Your task to perform on an android device: Open Yahoo.com Image 0: 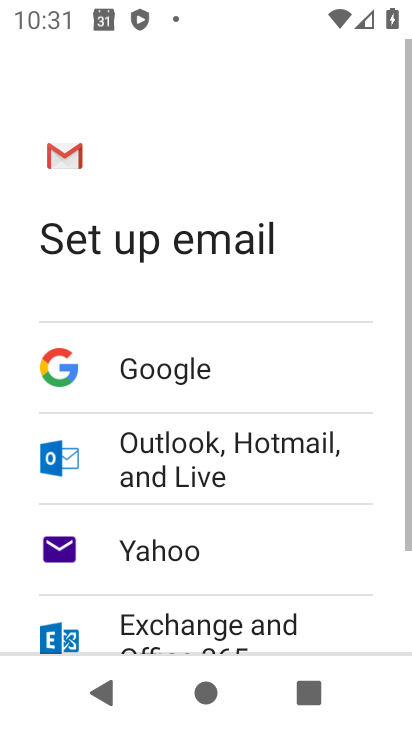
Step 0: press home button
Your task to perform on an android device: Open Yahoo.com Image 1: 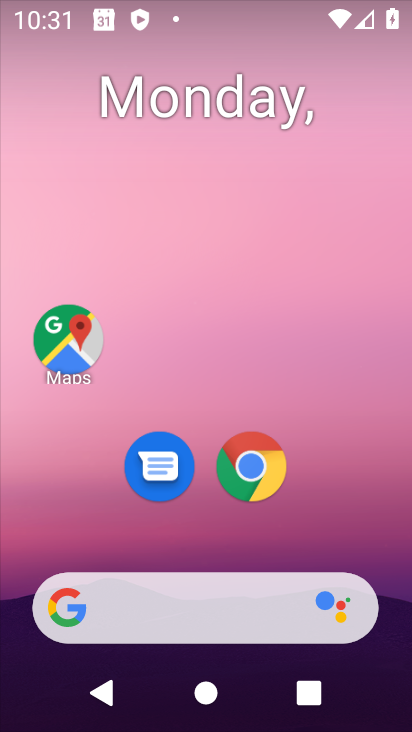
Step 1: drag from (325, 519) to (278, 10)
Your task to perform on an android device: Open Yahoo.com Image 2: 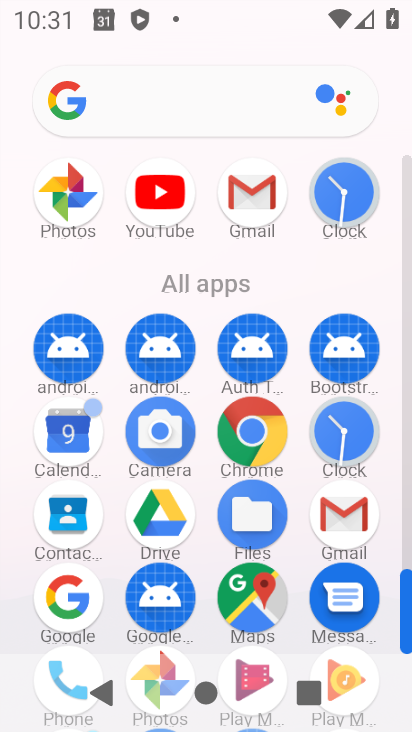
Step 2: click (242, 419)
Your task to perform on an android device: Open Yahoo.com Image 3: 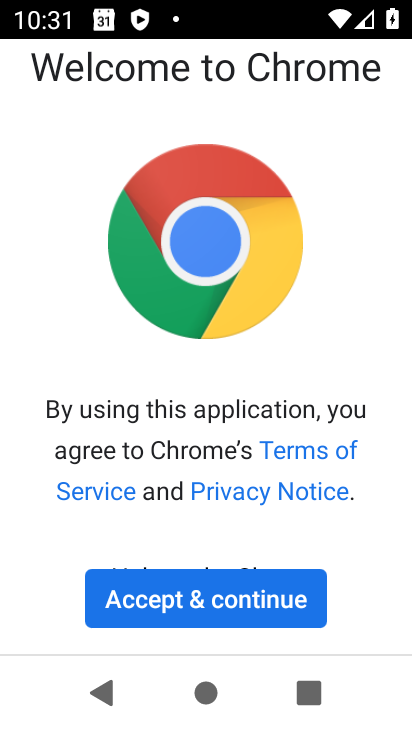
Step 3: click (214, 586)
Your task to perform on an android device: Open Yahoo.com Image 4: 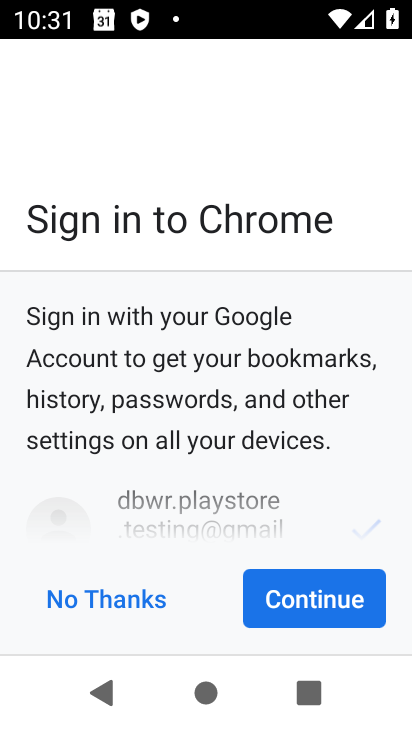
Step 4: click (301, 589)
Your task to perform on an android device: Open Yahoo.com Image 5: 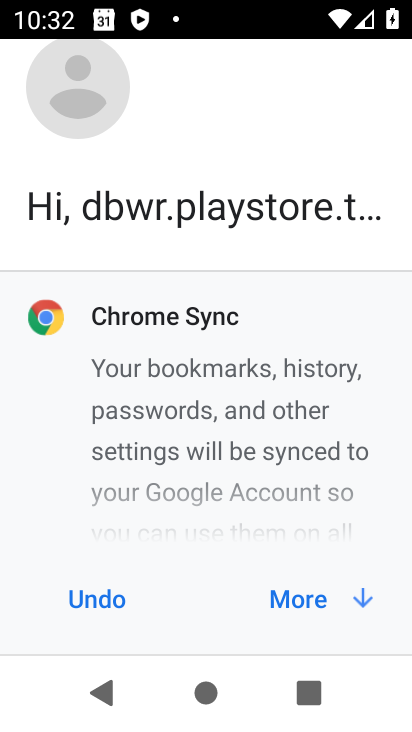
Step 5: click (307, 592)
Your task to perform on an android device: Open Yahoo.com Image 6: 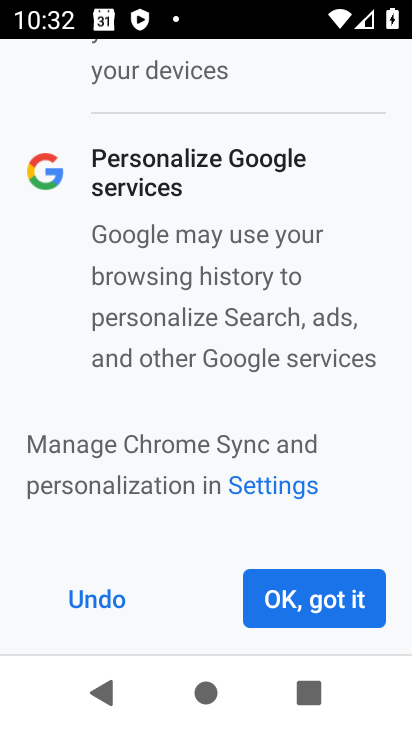
Step 6: click (293, 604)
Your task to perform on an android device: Open Yahoo.com Image 7: 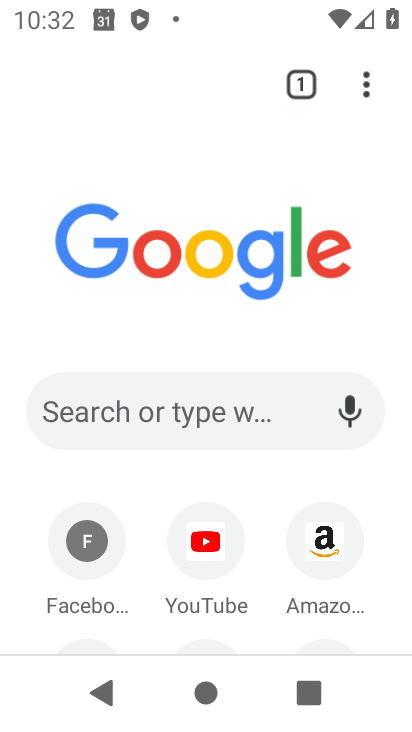
Step 7: drag from (254, 567) to (260, 318)
Your task to perform on an android device: Open Yahoo.com Image 8: 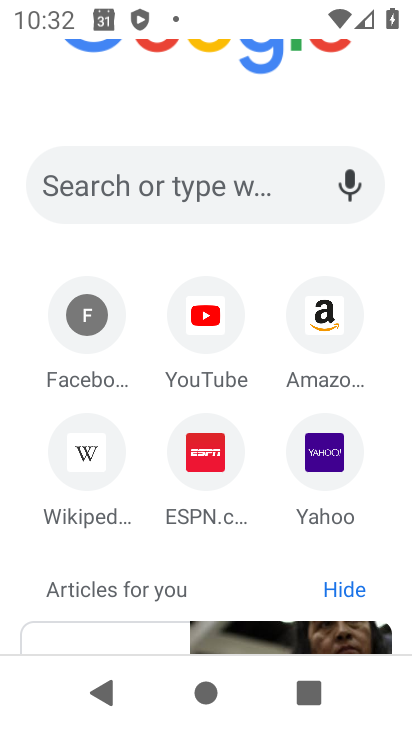
Step 8: click (317, 455)
Your task to perform on an android device: Open Yahoo.com Image 9: 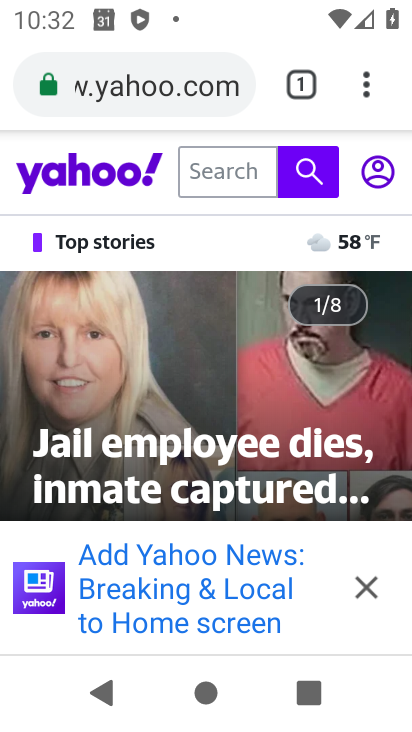
Step 9: task complete